Your task to perform on an android device: Open Google Maps and go to "Timeline" Image 0: 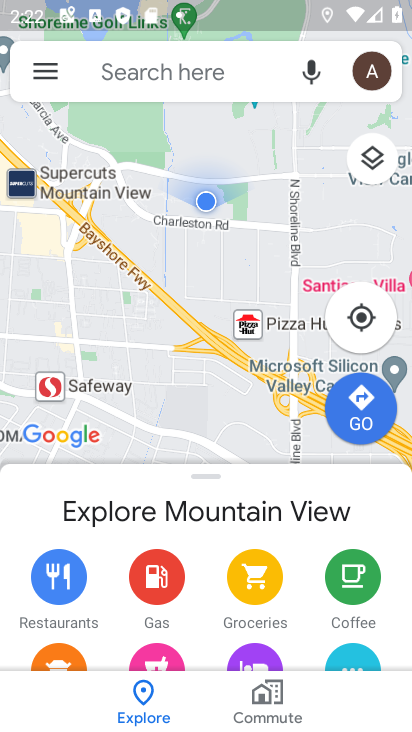
Step 0: click (48, 68)
Your task to perform on an android device: Open Google Maps and go to "Timeline" Image 1: 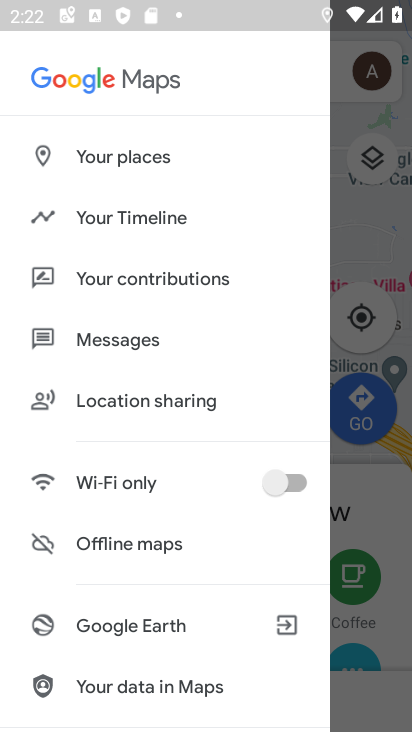
Step 1: click (116, 216)
Your task to perform on an android device: Open Google Maps and go to "Timeline" Image 2: 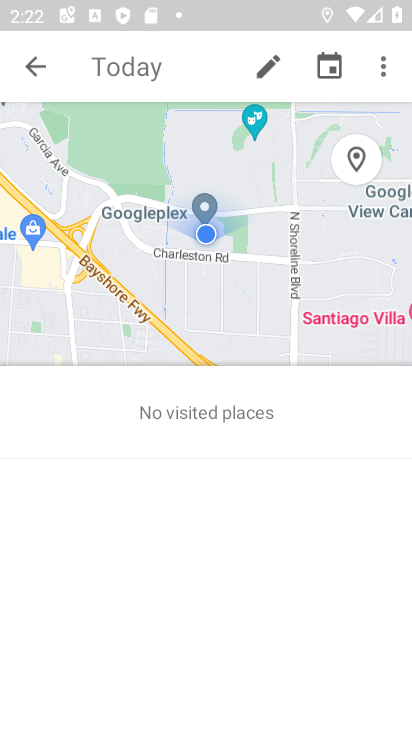
Step 2: task complete